Your task to perform on an android device: turn on bluetooth scan Image 0: 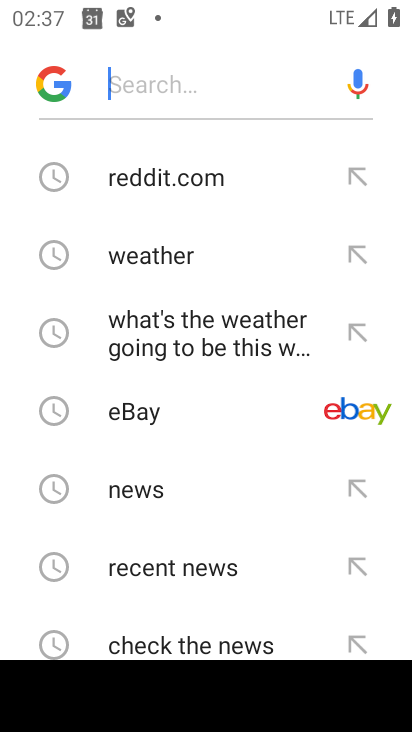
Step 0: press back button
Your task to perform on an android device: turn on bluetooth scan Image 1: 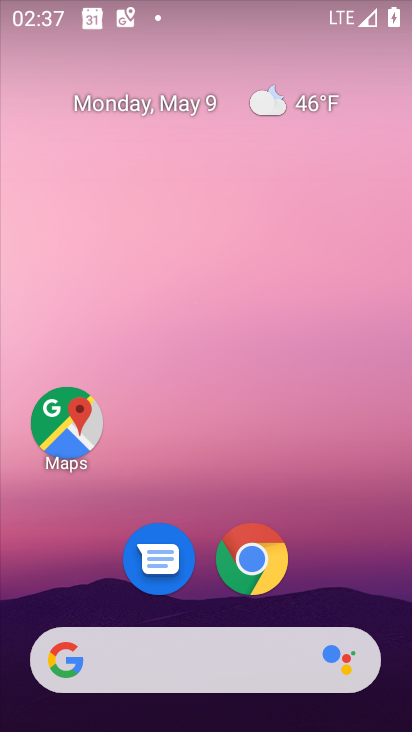
Step 1: drag from (315, 525) to (334, 1)
Your task to perform on an android device: turn on bluetooth scan Image 2: 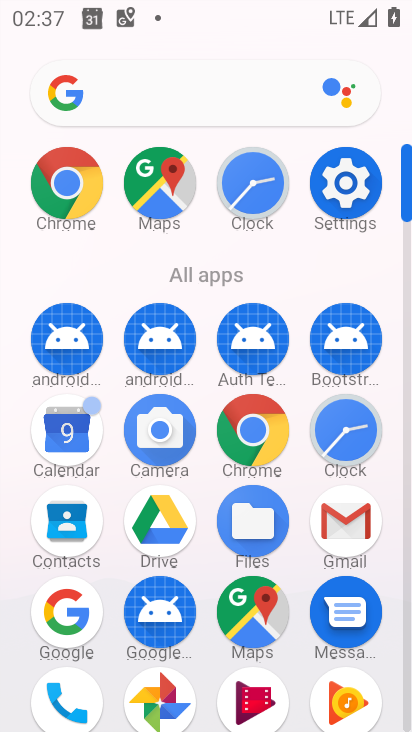
Step 2: click (346, 181)
Your task to perform on an android device: turn on bluetooth scan Image 3: 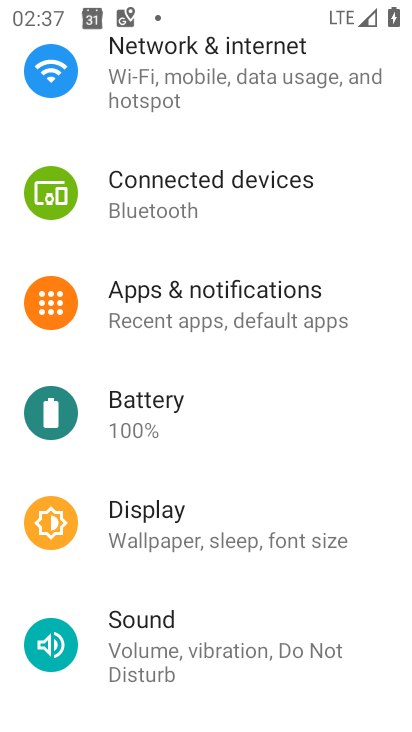
Step 3: drag from (169, 396) to (273, 243)
Your task to perform on an android device: turn on bluetooth scan Image 4: 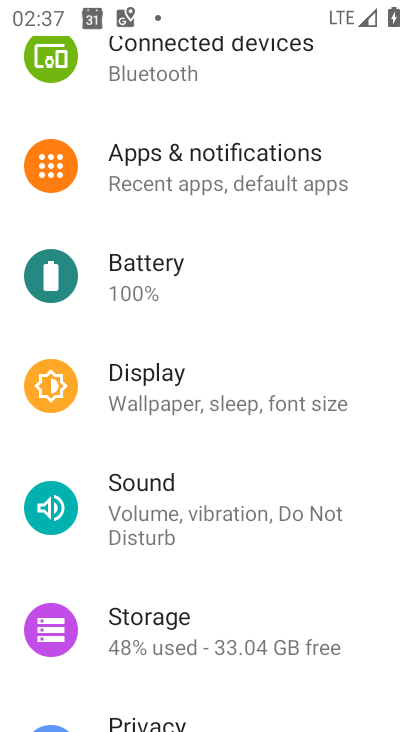
Step 4: drag from (237, 361) to (292, 265)
Your task to perform on an android device: turn on bluetooth scan Image 5: 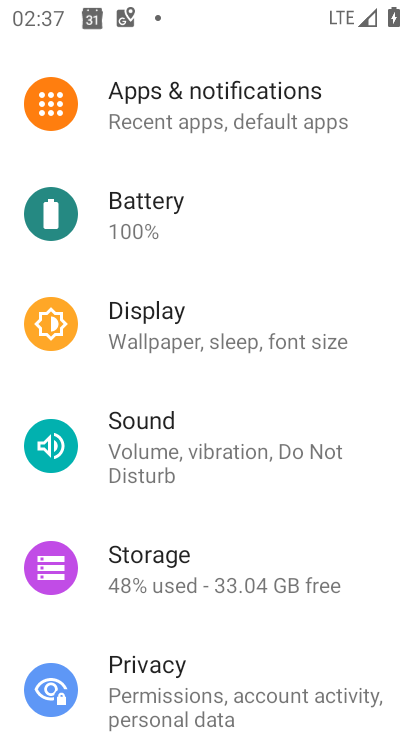
Step 5: drag from (193, 509) to (241, 320)
Your task to perform on an android device: turn on bluetooth scan Image 6: 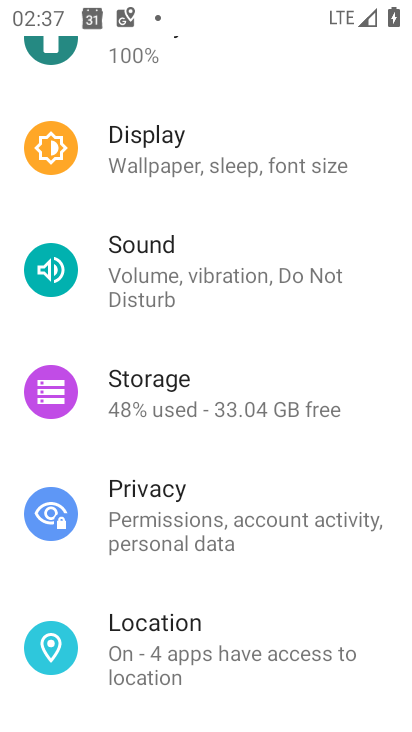
Step 6: drag from (204, 534) to (282, 376)
Your task to perform on an android device: turn on bluetooth scan Image 7: 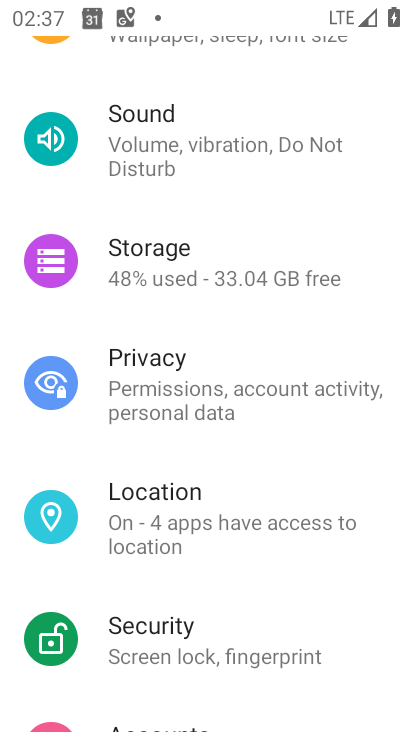
Step 7: drag from (225, 460) to (231, 318)
Your task to perform on an android device: turn on bluetooth scan Image 8: 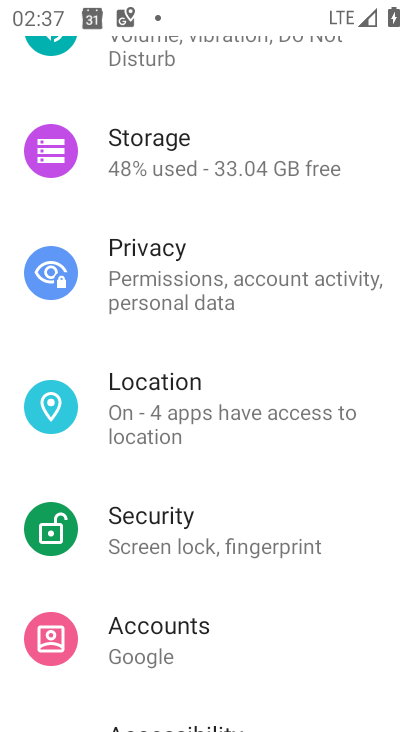
Step 8: drag from (191, 473) to (259, 333)
Your task to perform on an android device: turn on bluetooth scan Image 9: 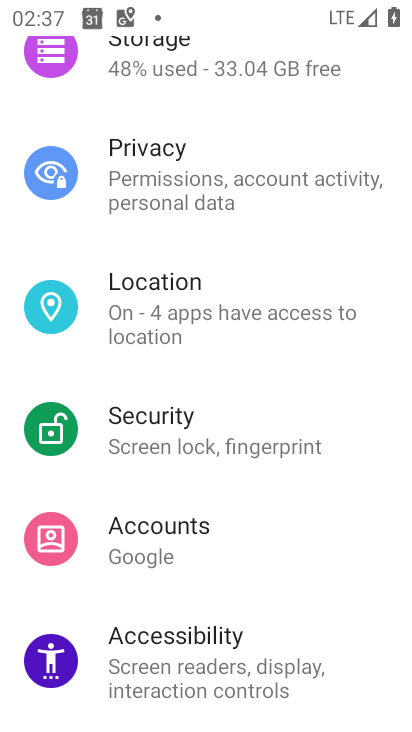
Step 9: drag from (269, 320) to (278, 227)
Your task to perform on an android device: turn on bluetooth scan Image 10: 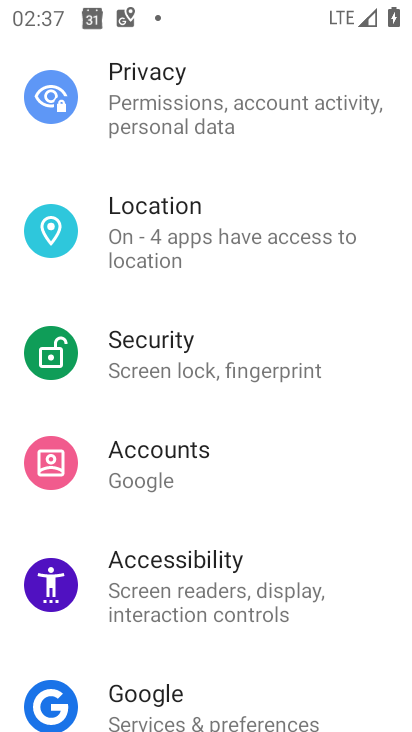
Step 10: drag from (216, 417) to (278, 265)
Your task to perform on an android device: turn on bluetooth scan Image 11: 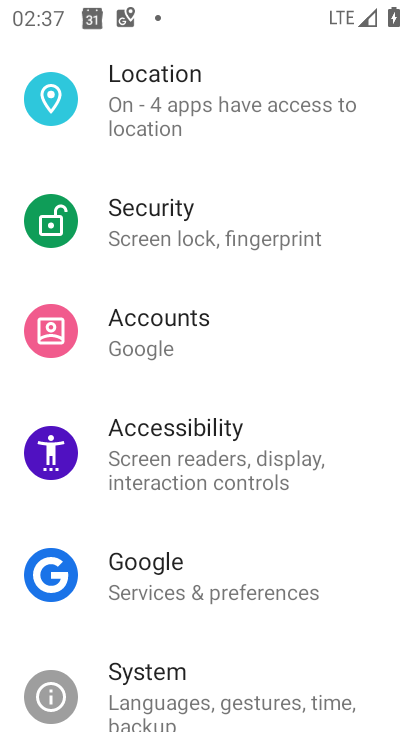
Step 11: click (125, 70)
Your task to perform on an android device: turn on bluetooth scan Image 12: 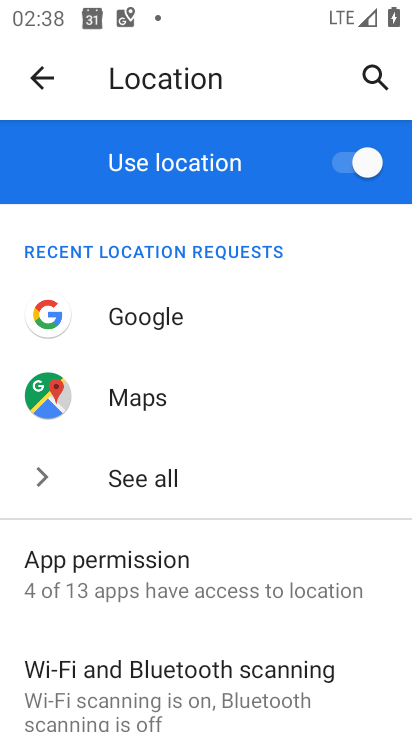
Step 12: click (97, 670)
Your task to perform on an android device: turn on bluetooth scan Image 13: 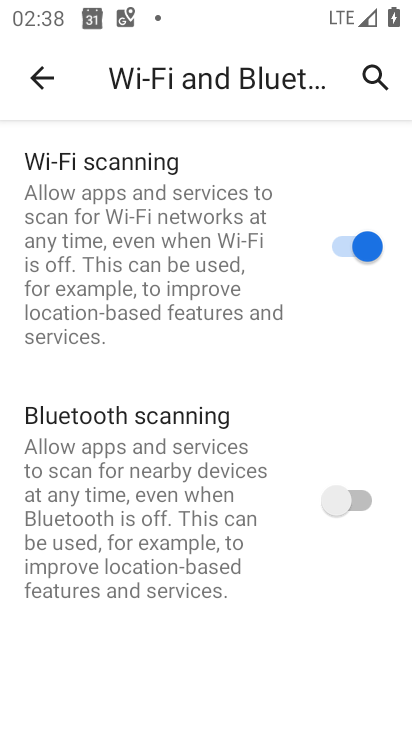
Step 13: click (352, 486)
Your task to perform on an android device: turn on bluetooth scan Image 14: 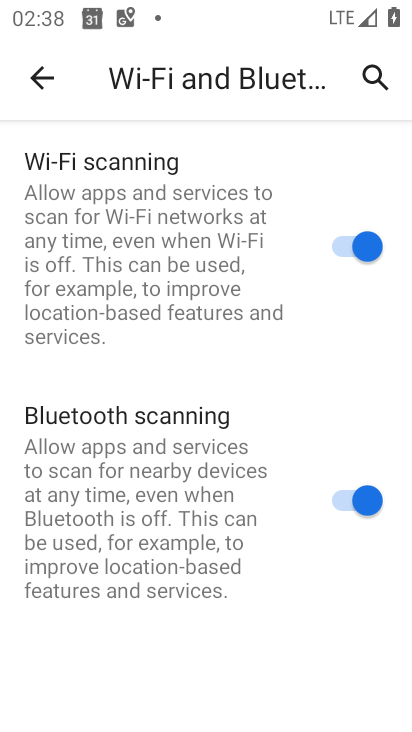
Step 14: task complete